Your task to perform on an android device: turn on location history Image 0: 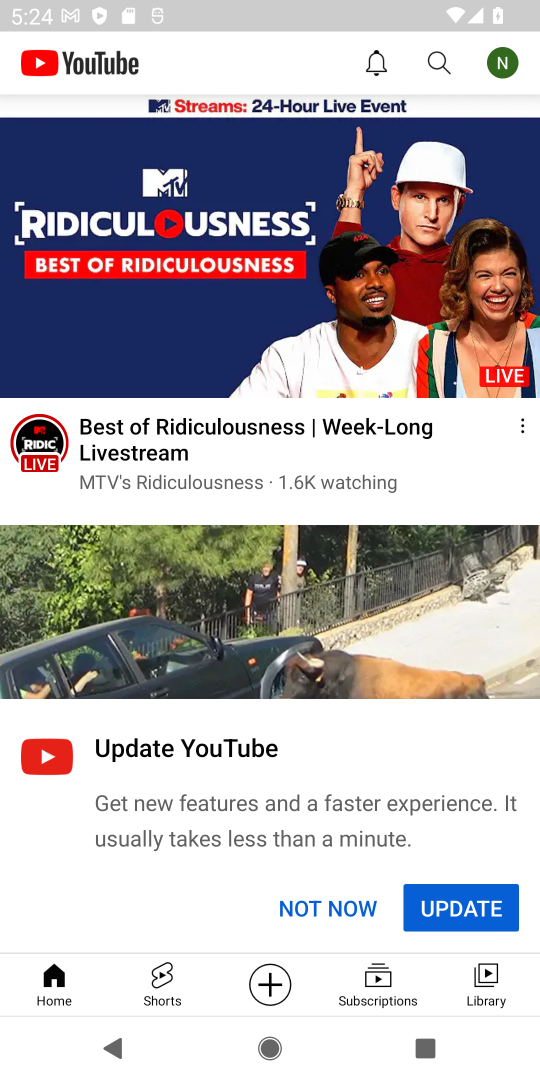
Step 0: press back button
Your task to perform on an android device: turn on location history Image 1: 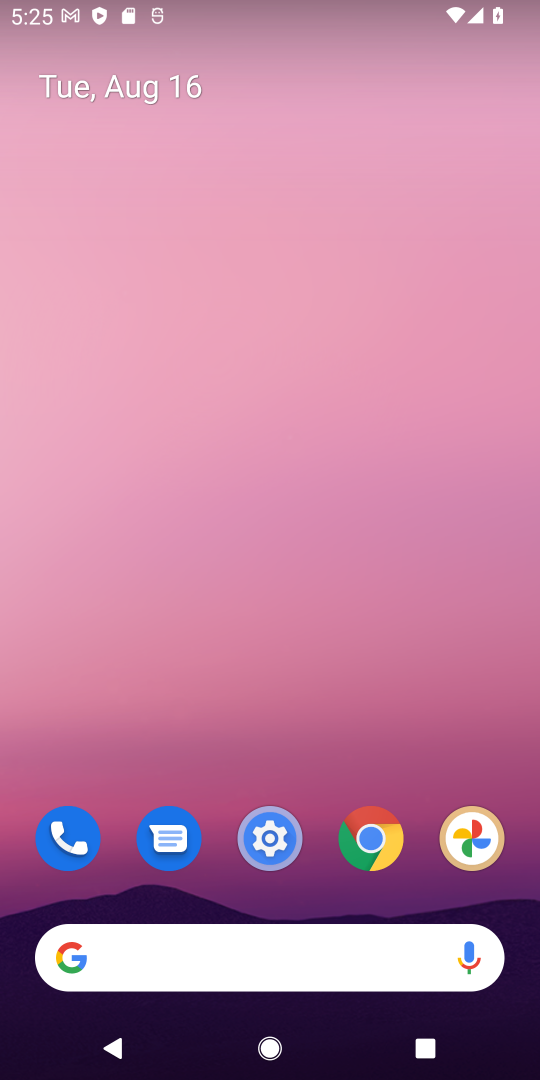
Step 1: click (279, 839)
Your task to perform on an android device: turn on location history Image 2: 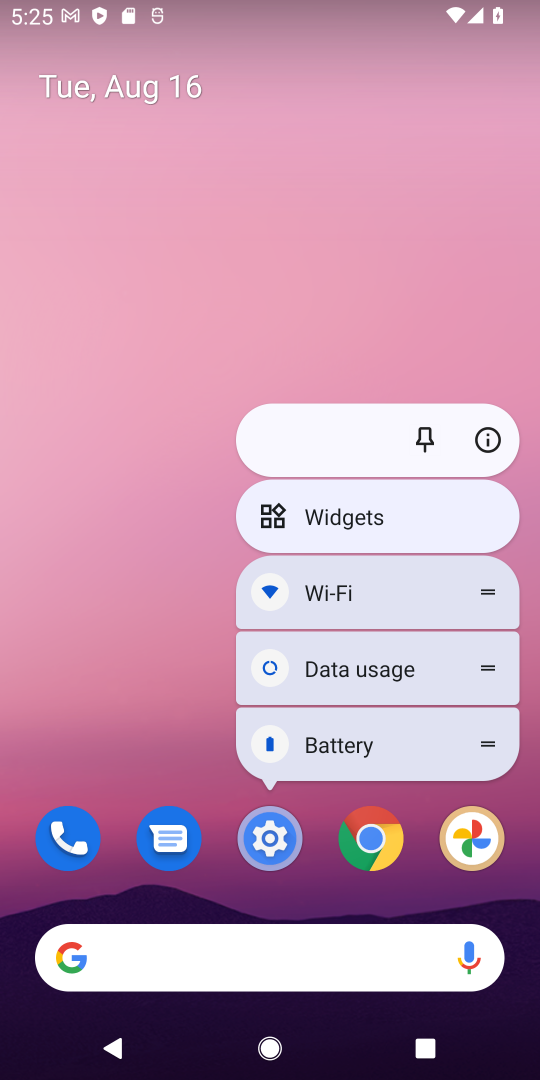
Step 2: click (276, 829)
Your task to perform on an android device: turn on location history Image 3: 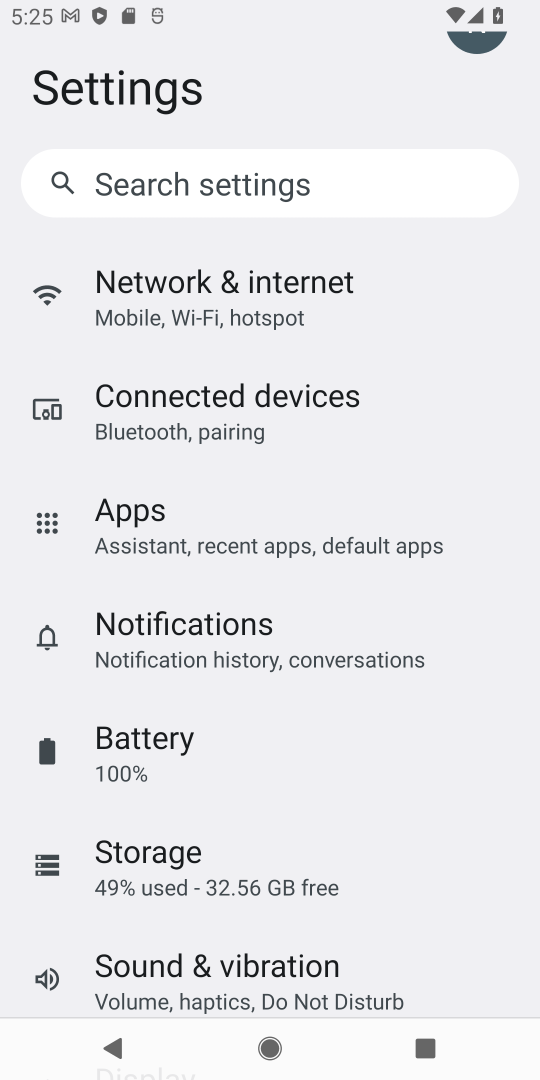
Step 3: press back button
Your task to perform on an android device: turn on location history Image 4: 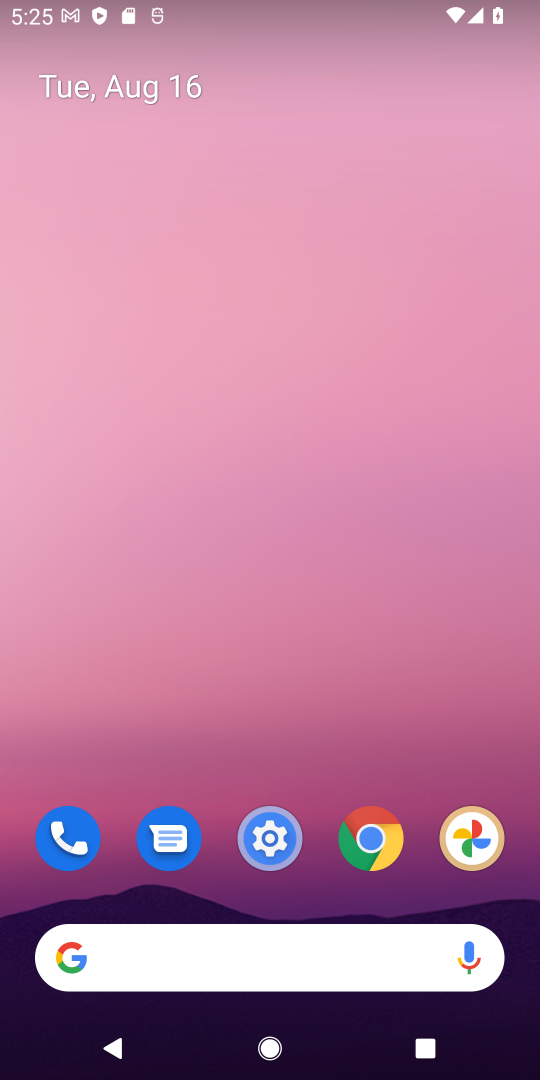
Step 4: click (263, 836)
Your task to perform on an android device: turn on location history Image 5: 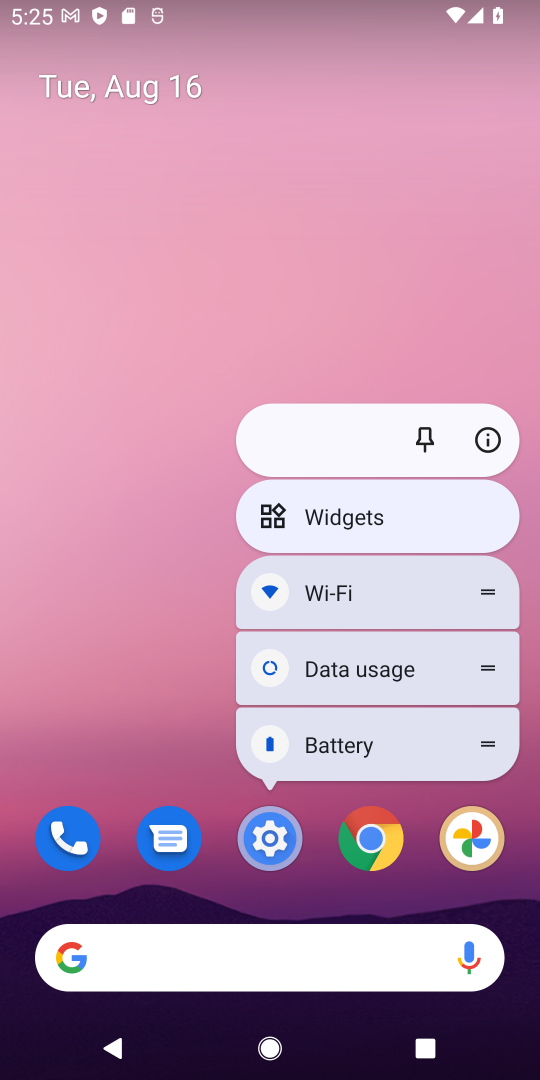
Step 5: click (263, 836)
Your task to perform on an android device: turn on location history Image 6: 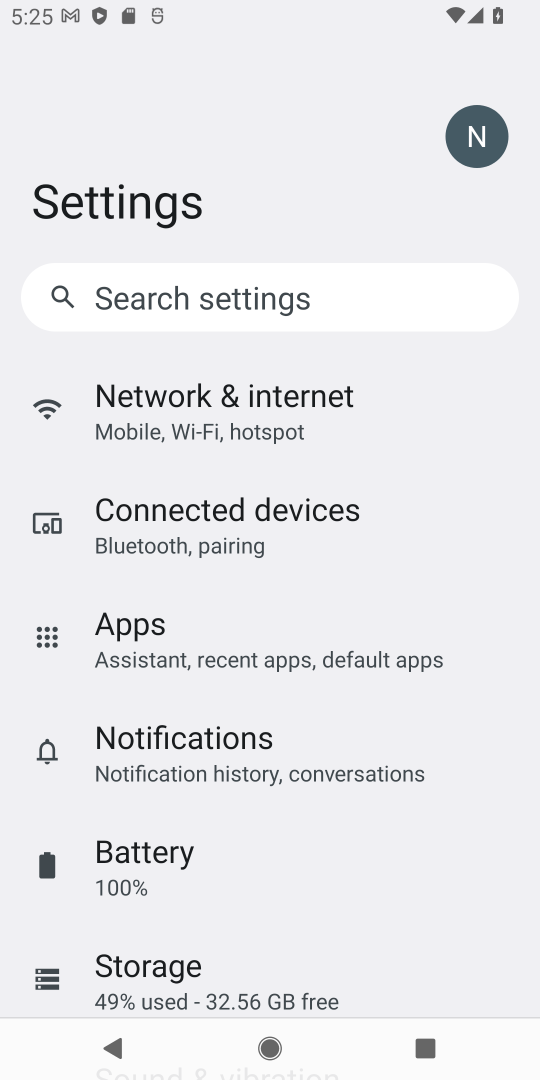
Step 6: drag from (263, 979) to (426, 216)
Your task to perform on an android device: turn on location history Image 7: 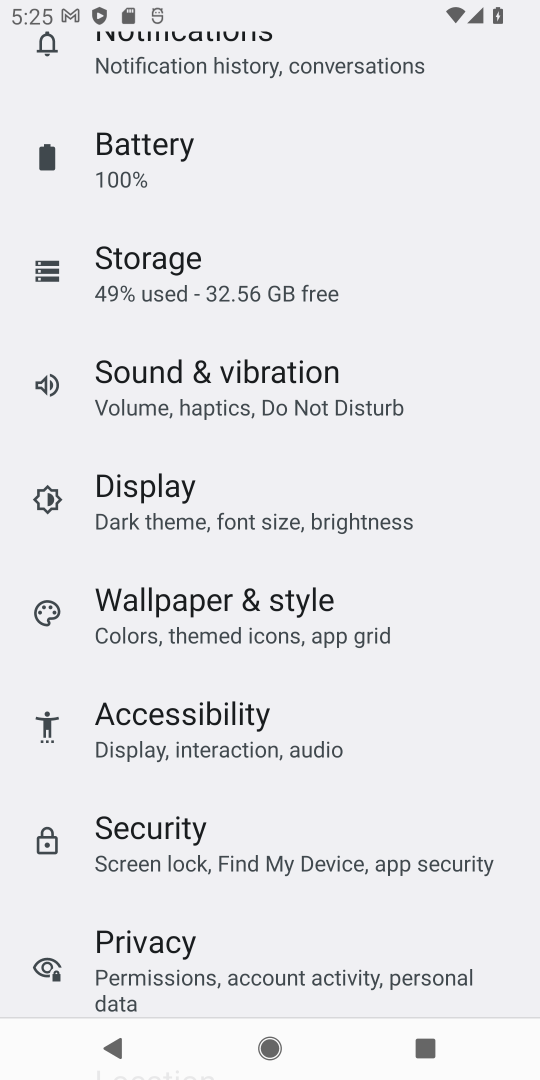
Step 7: drag from (193, 919) to (364, 266)
Your task to perform on an android device: turn on location history Image 8: 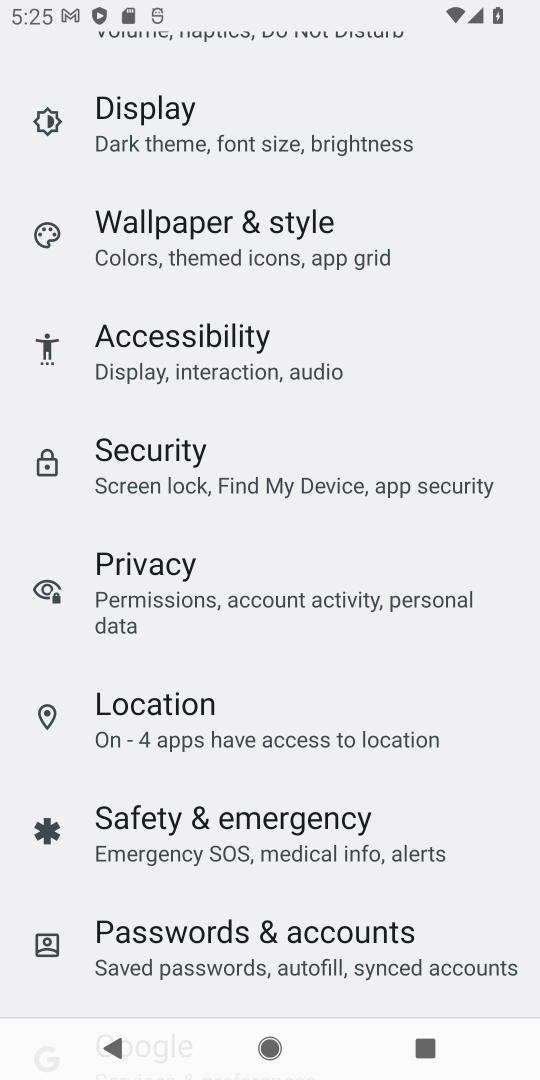
Step 8: click (194, 716)
Your task to perform on an android device: turn on location history Image 9: 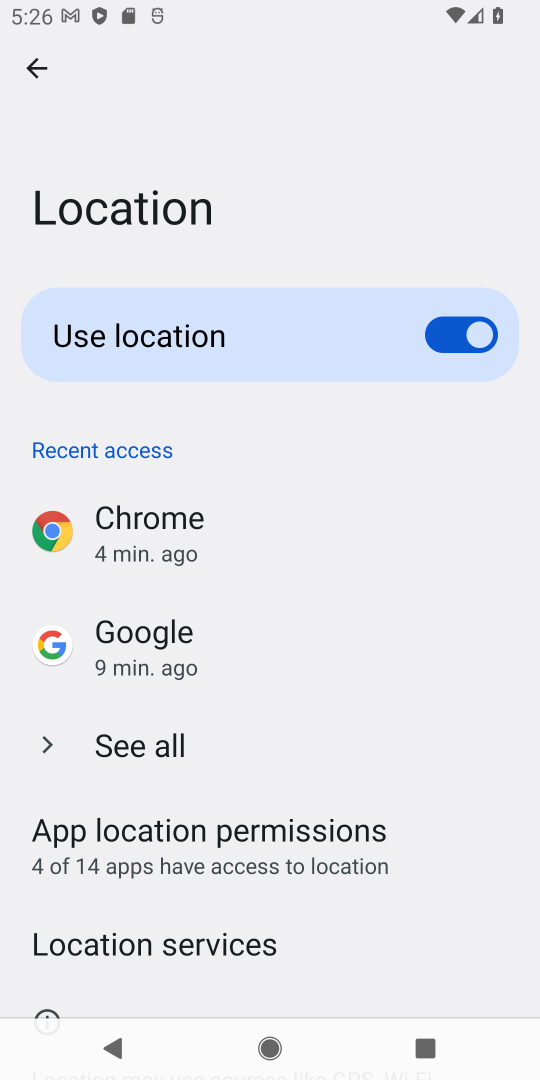
Step 9: drag from (308, 856) to (379, 278)
Your task to perform on an android device: turn on location history Image 10: 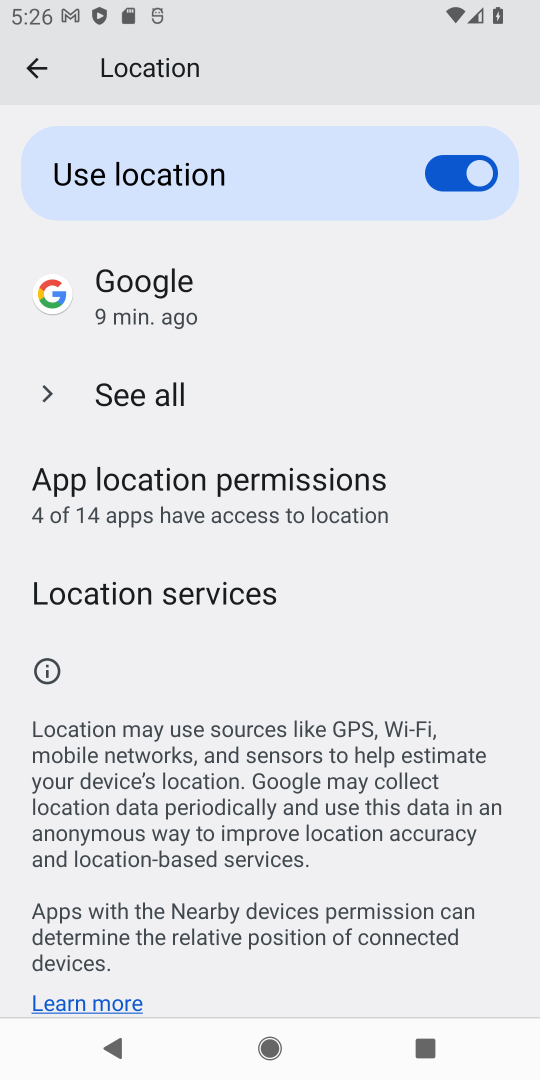
Step 10: click (160, 598)
Your task to perform on an android device: turn on location history Image 11: 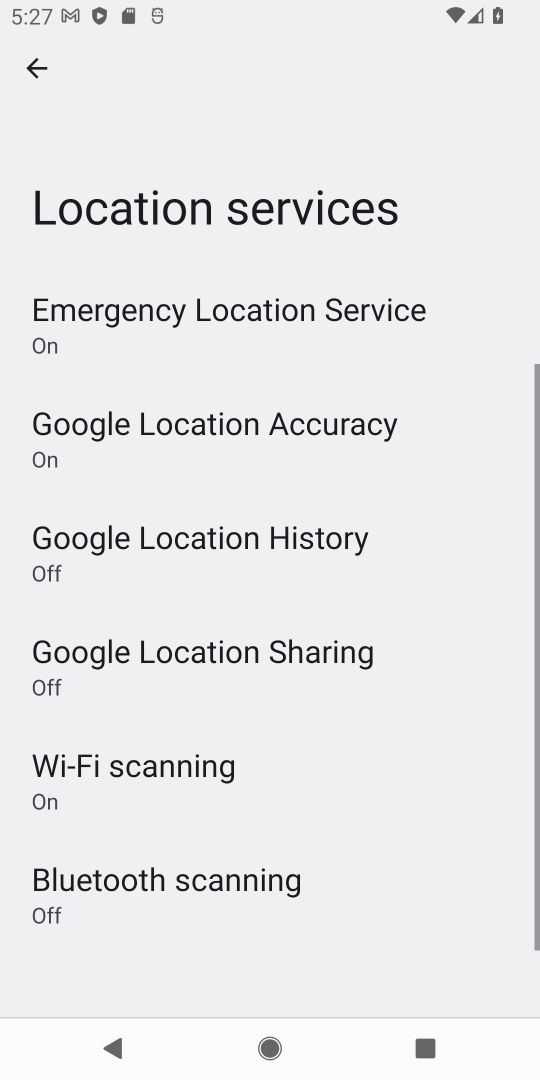
Step 11: click (342, 547)
Your task to perform on an android device: turn on location history Image 12: 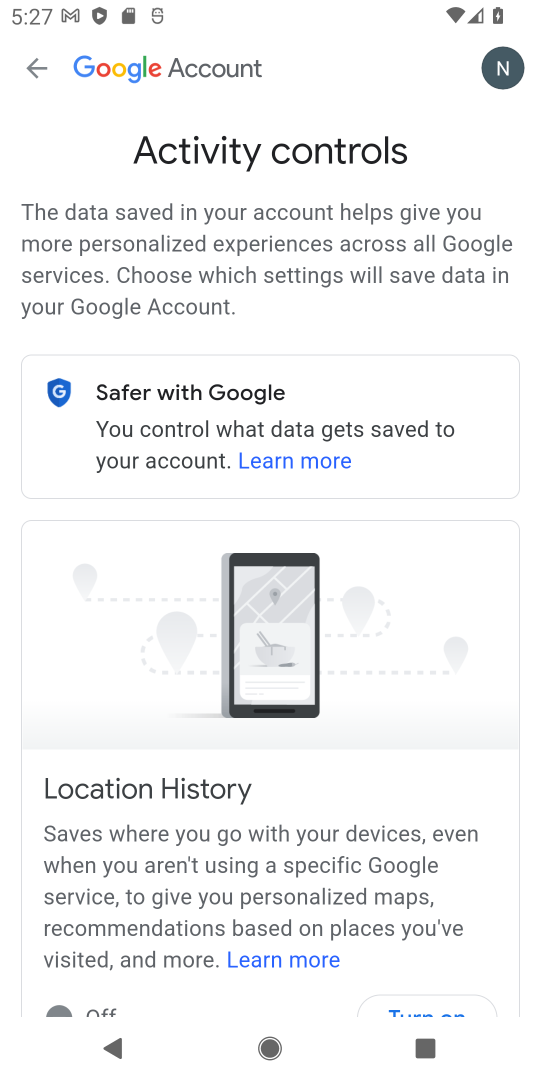
Step 12: drag from (283, 831) to (364, 191)
Your task to perform on an android device: turn on location history Image 13: 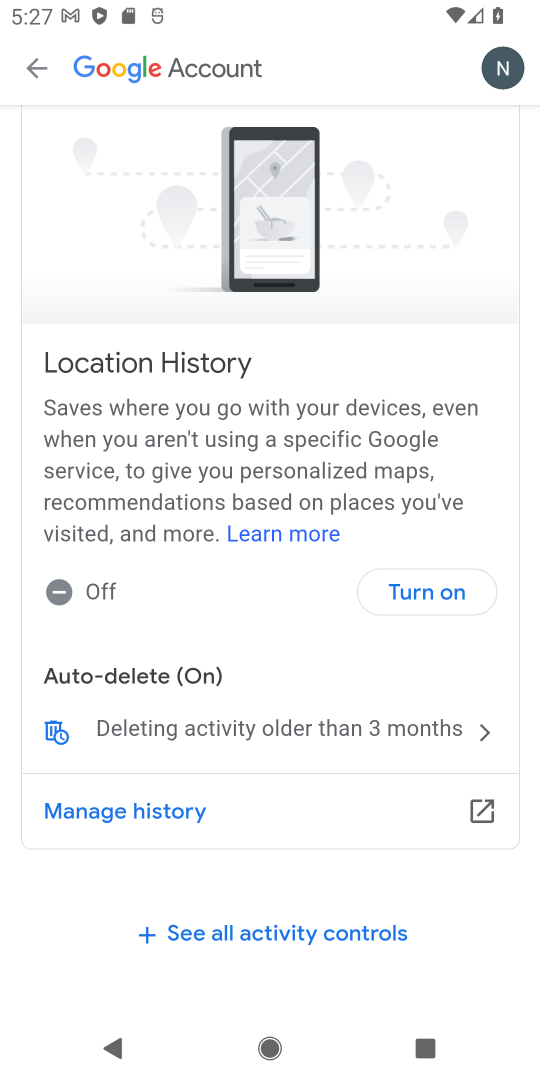
Step 13: click (440, 587)
Your task to perform on an android device: turn on location history Image 14: 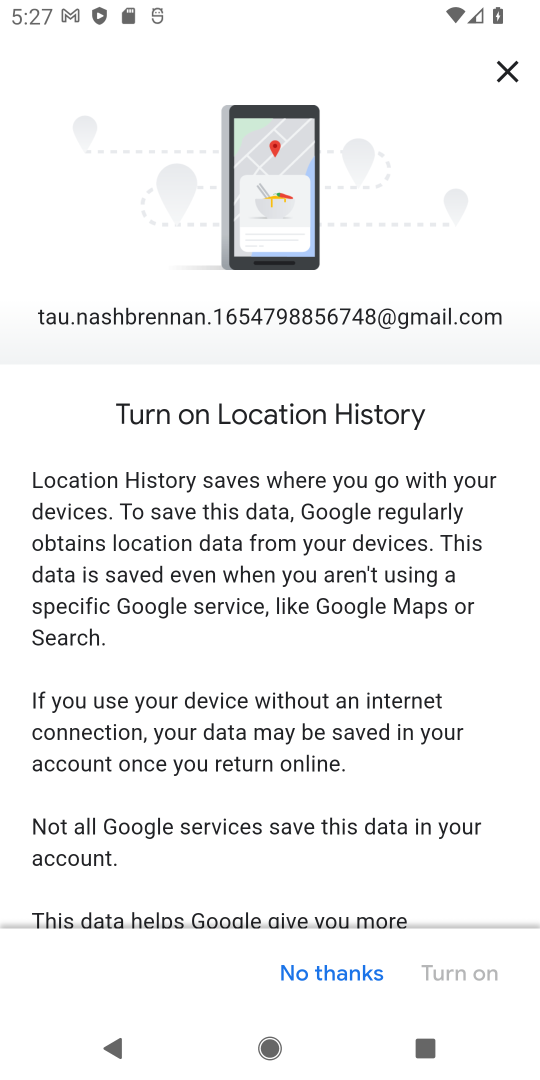
Step 14: drag from (337, 817) to (381, 51)
Your task to perform on an android device: turn on location history Image 15: 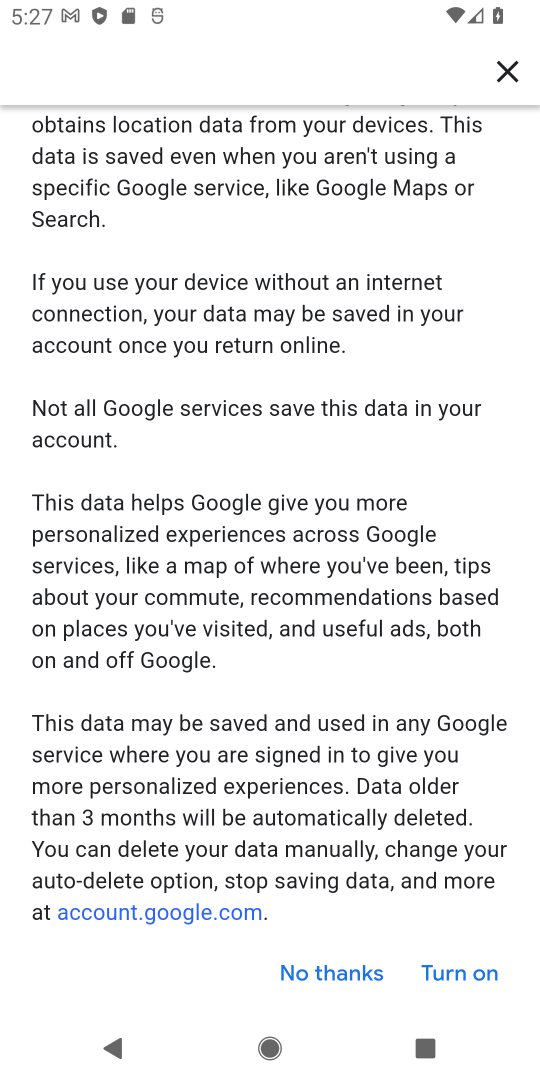
Step 15: click (426, 969)
Your task to perform on an android device: turn on location history Image 16: 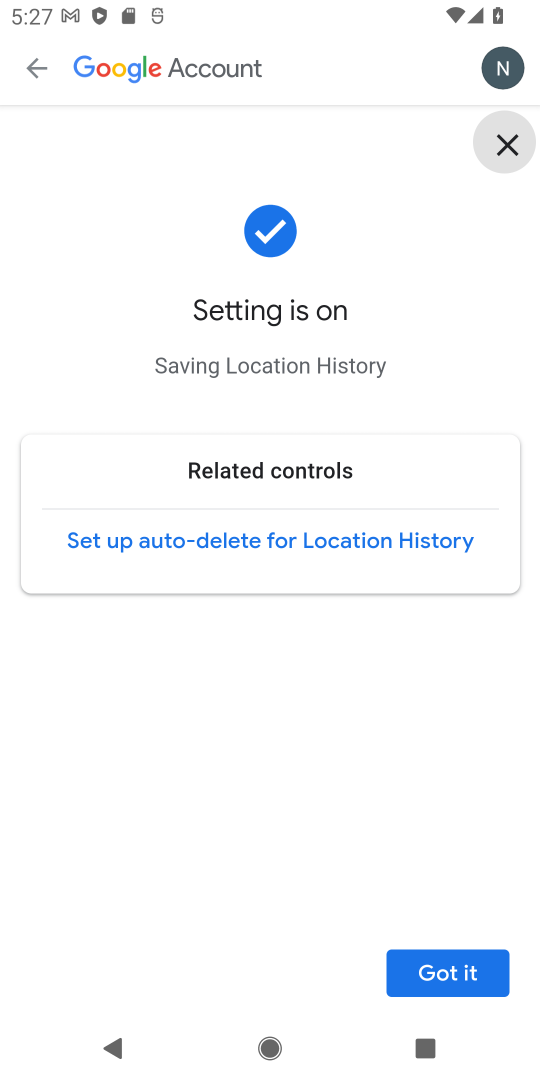
Step 16: click (457, 965)
Your task to perform on an android device: turn on location history Image 17: 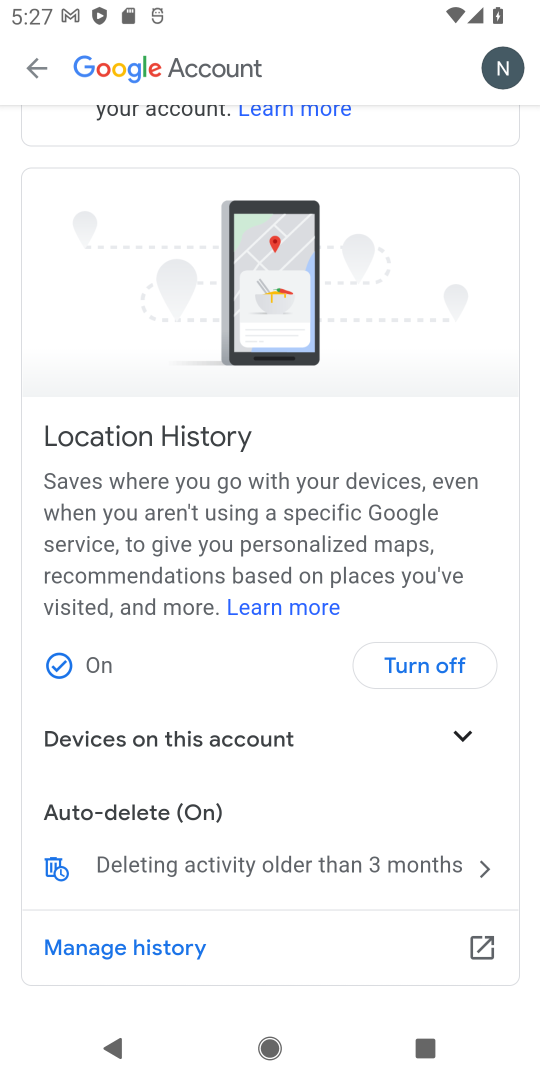
Step 17: task complete